Your task to perform on an android device: Open the phone app and click the voicemail tab. Image 0: 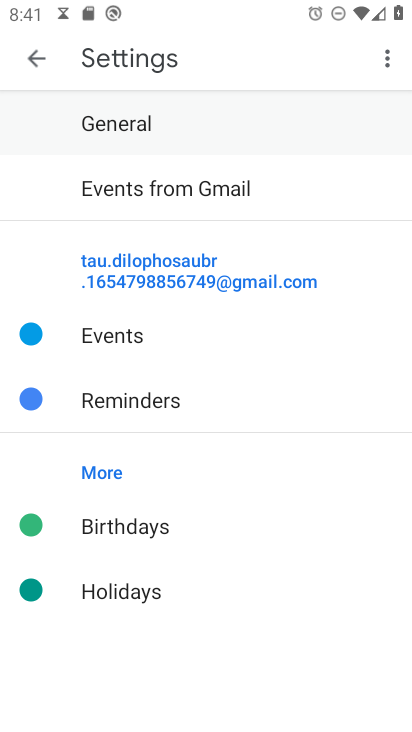
Step 0: press home button
Your task to perform on an android device: Open the phone app and click the voicemail tab. Image 1: 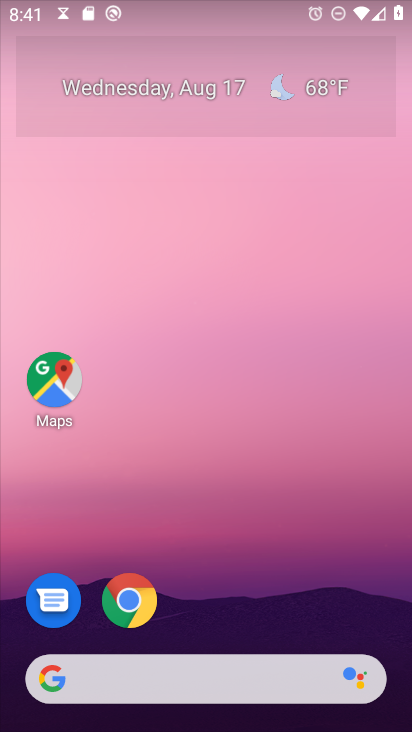
Step 1: drag from (236, 390) to (217, 115)
Your task to perform on an android device: Open the phone app and click the voicemail tab. Image 2: 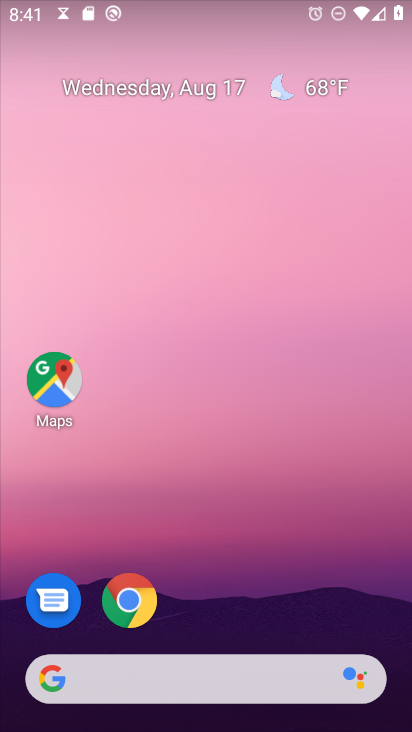
Step 2: drag from (226, 602) to (326, 19)
Your task to perform on an android device: Open the phone app and click the voicemail tab. Image 3: 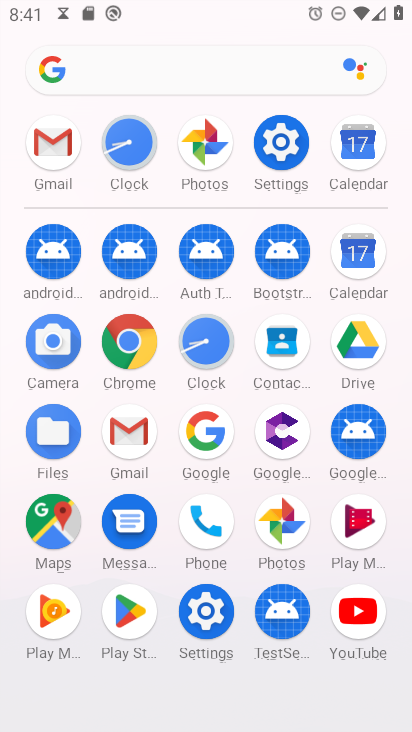
Step 3: click (201, 518)
Your task to perform on an android device: Open the phone app and click the voicemail tab. Image 4: 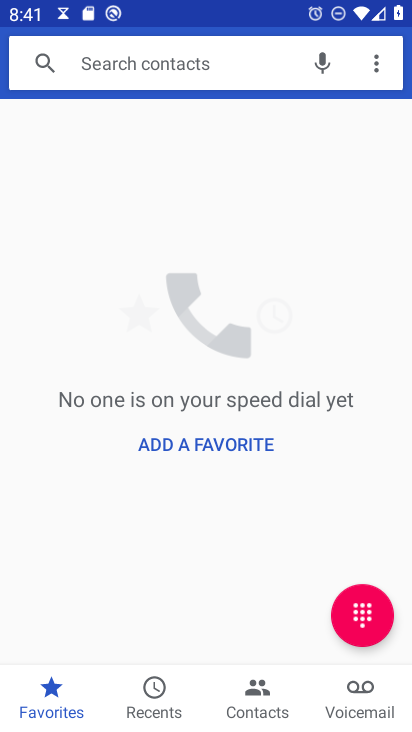
Step 4: click (346, 699)
Your task to perform on an android device: Open the phone app and click the voicemail tab. Image 5: 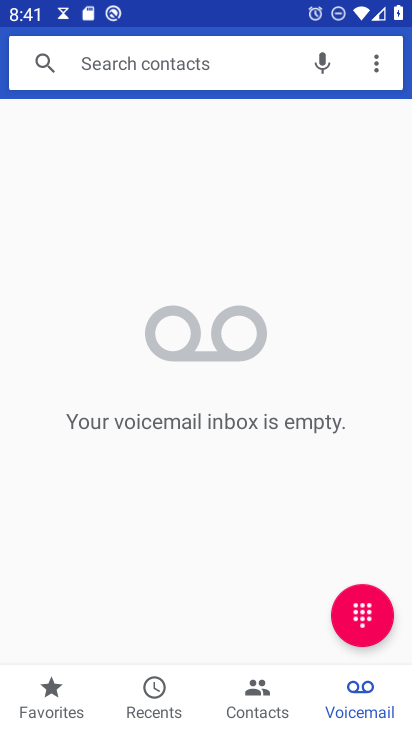
Step 5: task complete